Your task to perform on an android device: Open Maps and search for coffee Image 0: 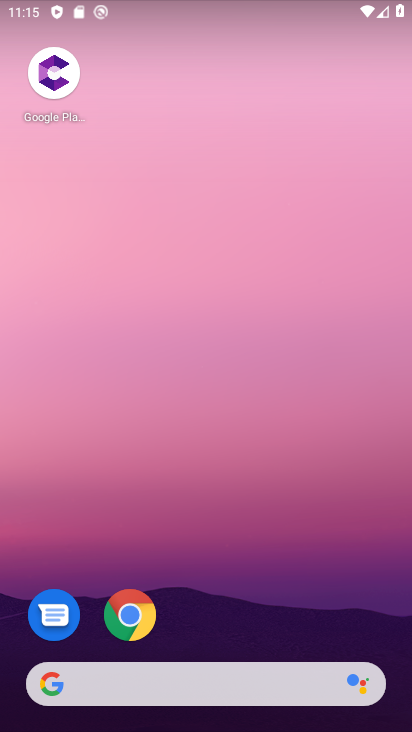
Step 0: click (320, 672)
Your task to perform on an android device: Open Maps and search for coffee Image 1: 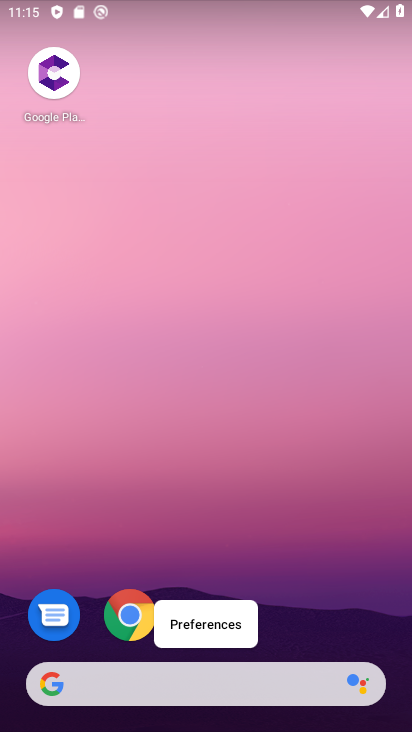
Step 1: click (135, 693)
Your task to perform on an android device: Open Maps and search for coffee Image 2: 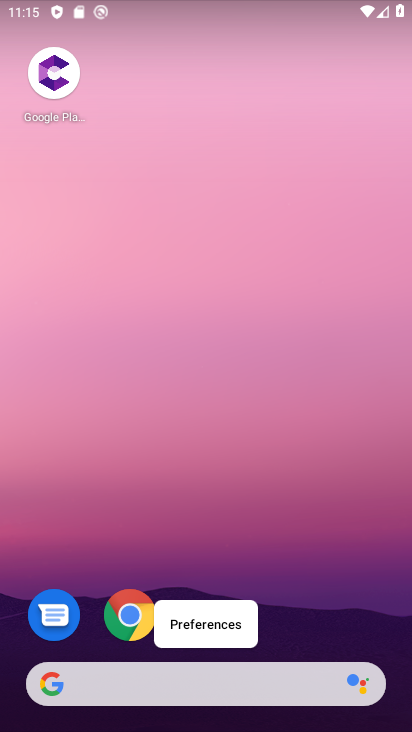
Step 2: click (165, 663)
Your task to perform on an android device: Open Maps and search for coffee Image 3: 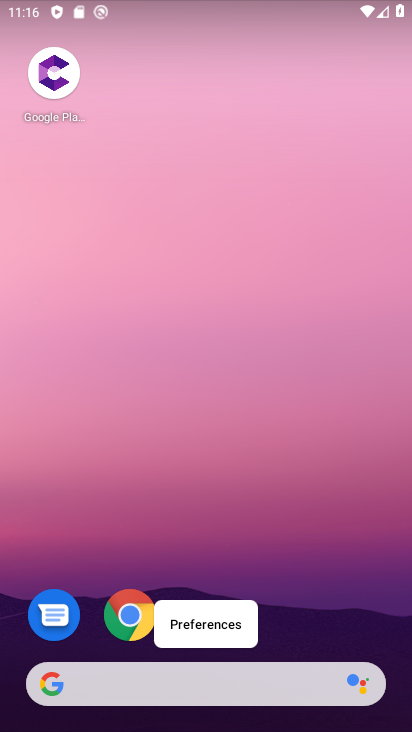
Step 3: click (183, 693)
Your task to perform on an android device: Open Maps and search for coffee Image 4: 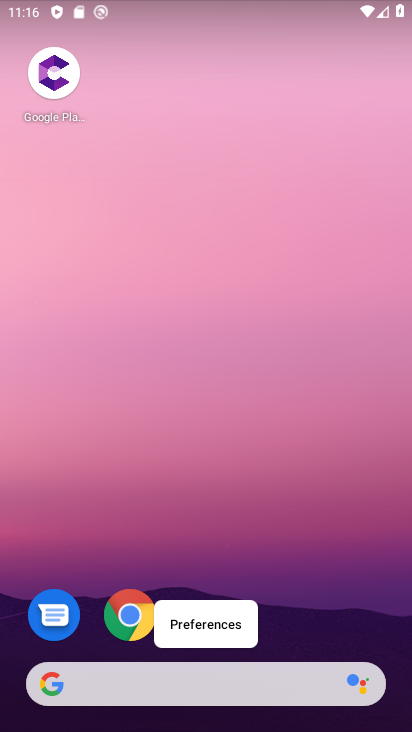
Step 4: drag from (246, 688) to (205, 337)
Your task to perform on an android device: Open Maps and search for coffee Image 5: 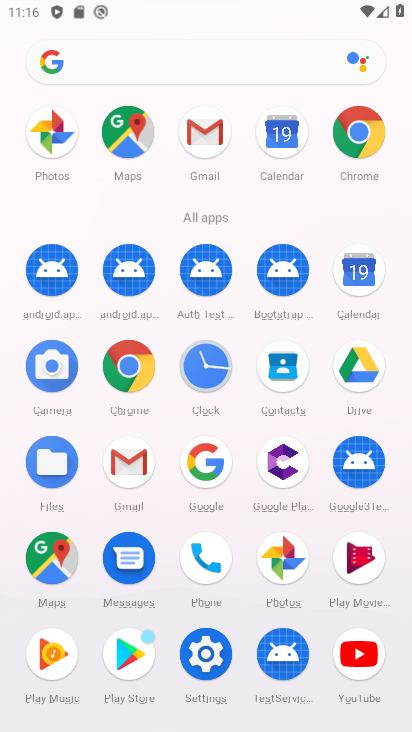
Step 5: click (126, 133)
Your task to perform on an android device: Open Maps and search for coffee Image 6: 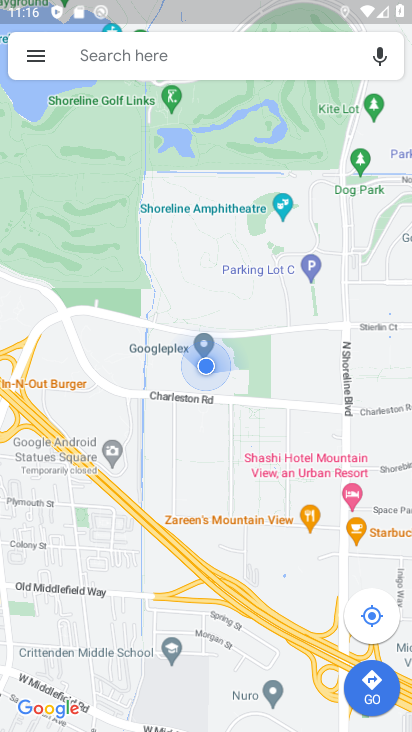
Step 6: click (129, 66)
Your task to perform on an android device: Open Maps and search for coffee Image 7: 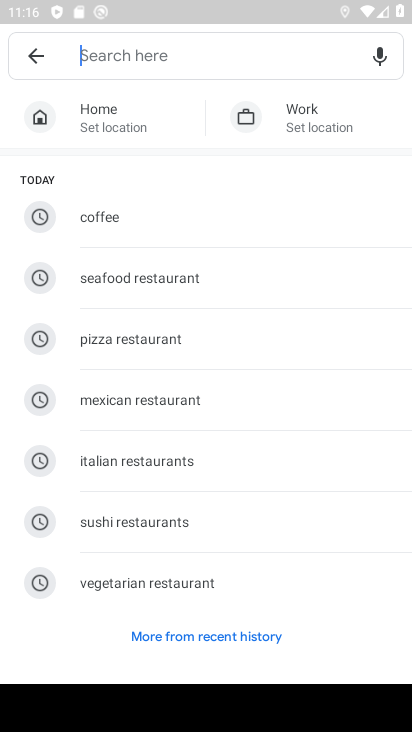
Step 7: click (95, 213)
Your task to perform on an android device: Open Maps and search for coffee Image 8: 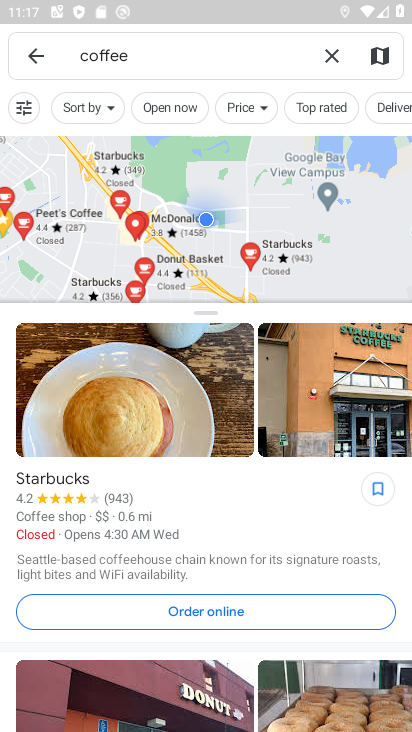
Step 8: task complete